Your task to perform on an android device: delete a single message in the gmail app Image 0: 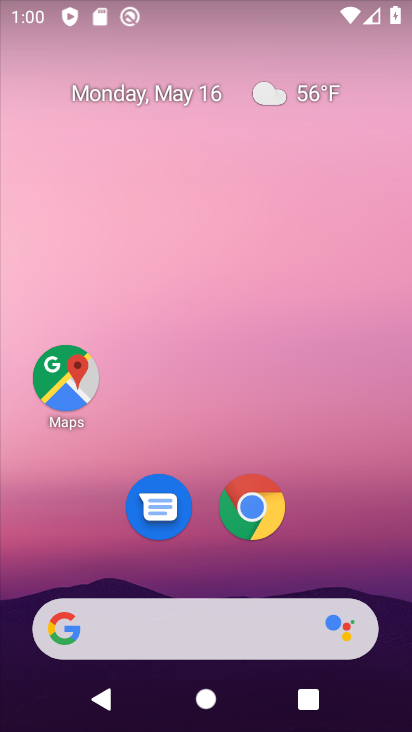
Step 0: drag from (194, 573) to (203, 242)
Your task to perform on an android device: delete a single message in the gmail app Image 1: 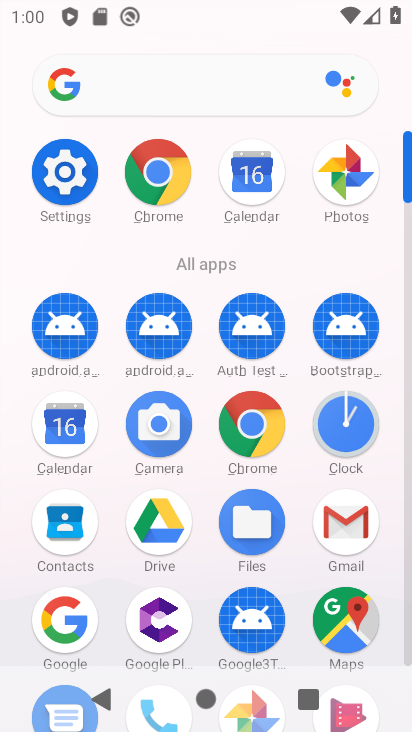
Step 1: click (357, 540)
Your task to perform on an android device: delete a single message in the gmail app Image 2: 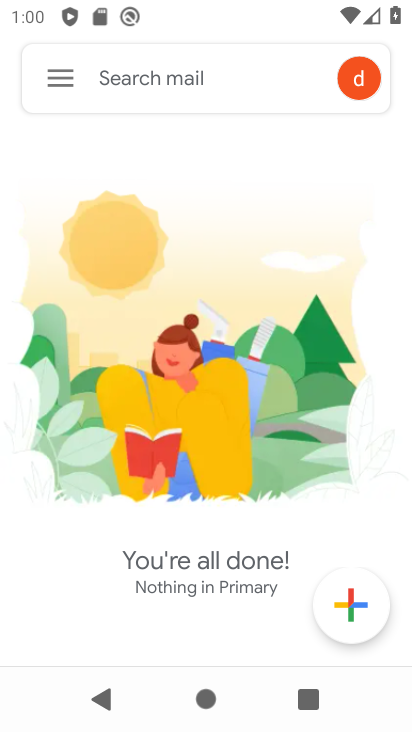
Step 2: click (64, 80)
Your task to perform on an android device: delete a single message in the gmail app Image 3: 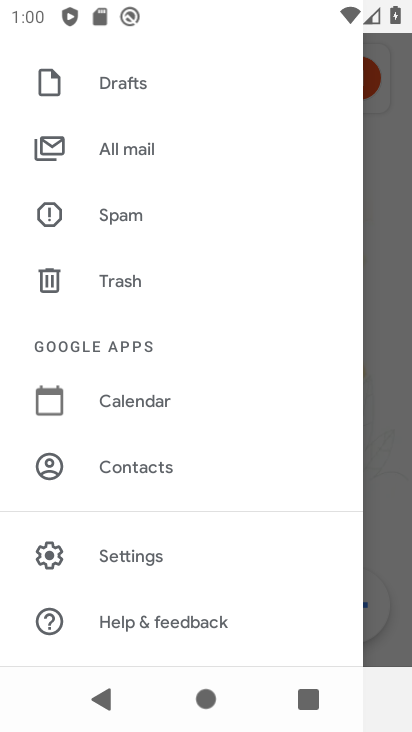
Step 3: drag from (157, 243) to (189, 420)
Your task to perform on an android device: delete a single message in the gmail app Image 4: 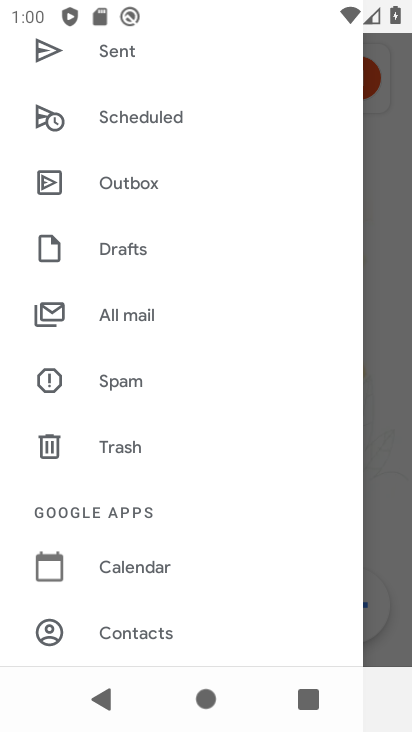
Step 4: click (137, 319)
Your task to perform on an android device: delete a single message in the gmail app Image 5: 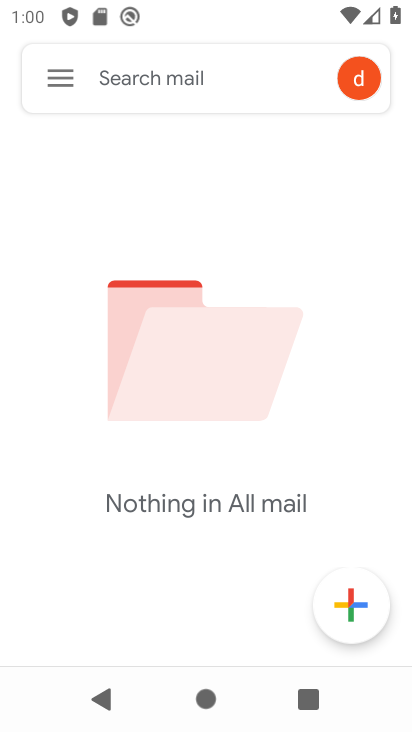
Step 5: task complete